Your task to perform on an android device: turn on improve location accuracy Image 0: 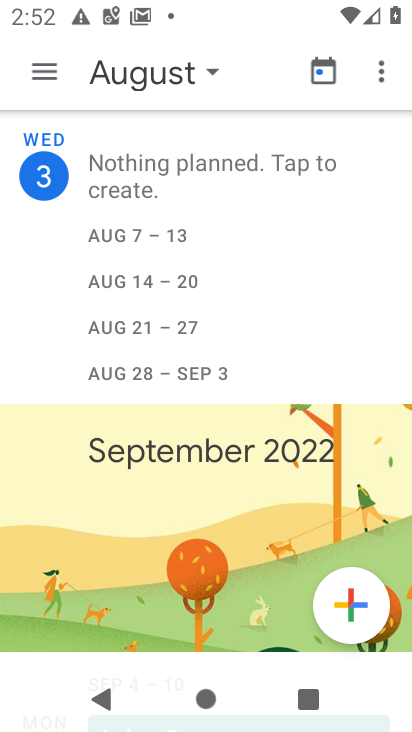
Step 0: press home button
Your task to perform on an android device: turn on improve location accuracy Image 1: 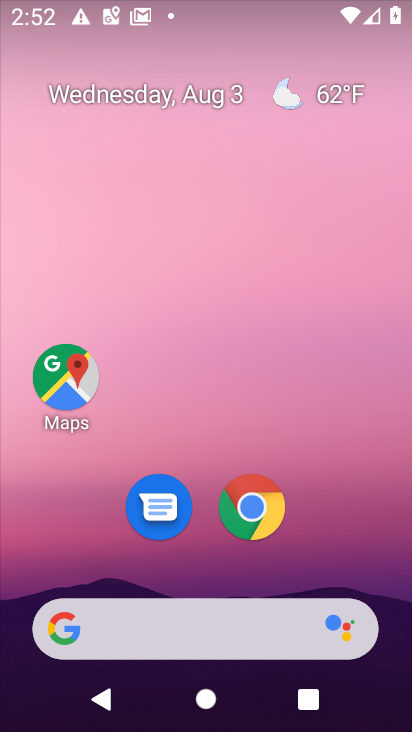
Step 1: drag from (348, 551) to (260, 84)
Your task to perform on an android device: turn on improve location accuracy Image 2: 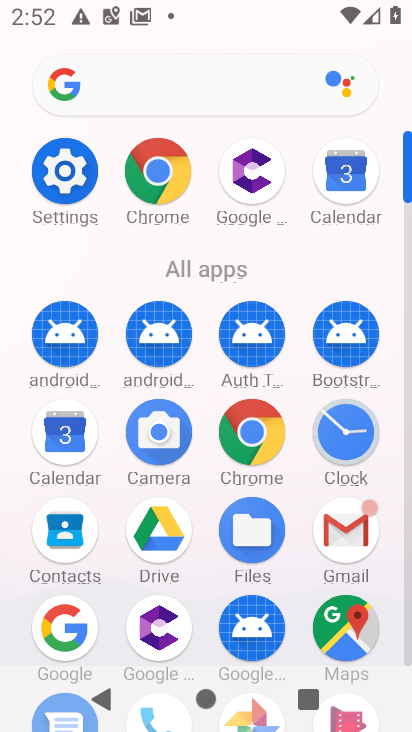
Step 2: click (61, 159)
Your task to perform on an android device: turn on improve location accuracy Image 3: 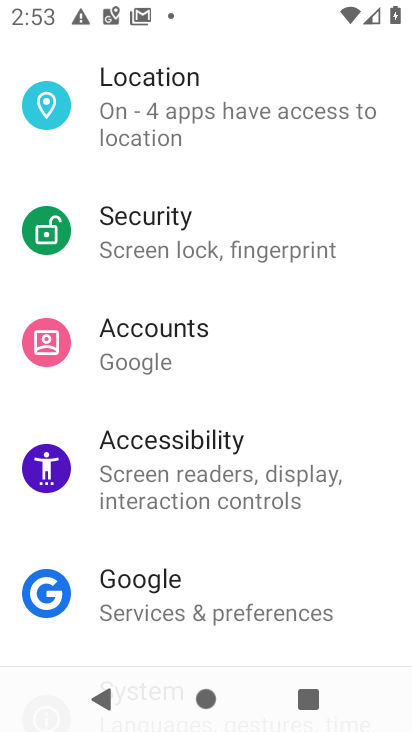
Step 3: click (157, 118)
Your task to perform on an android device: turn on improve location accuracy Image 4: 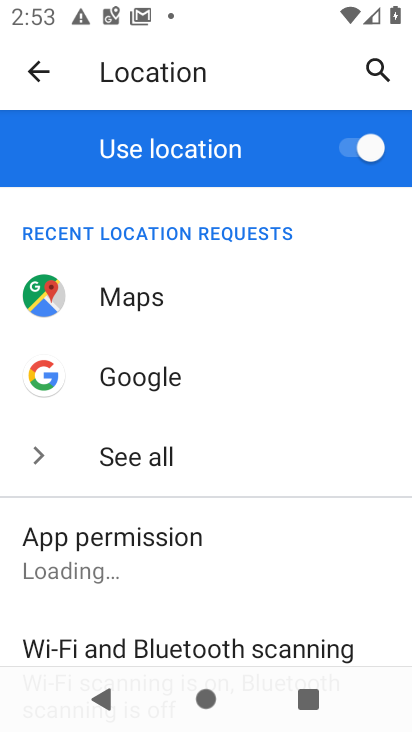
Step 4: drag from (227, 588) to (197, 253)
Your task to perform on an android device: turn on improve location accuracy Image 5: 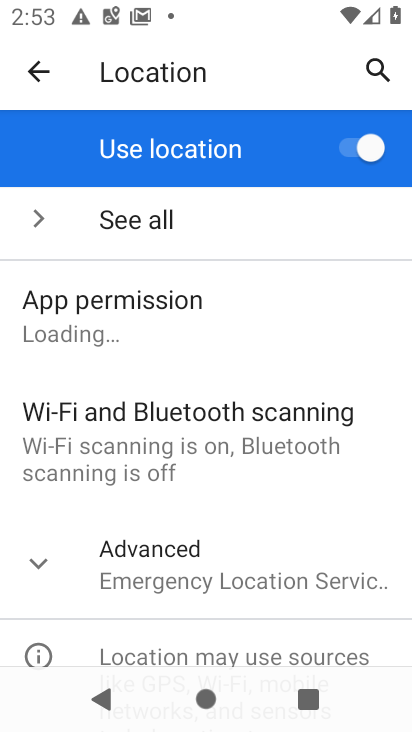
Step 5: click (172, 568)
Your task to perform on an android device: turn on improve location accuracy Image 6: 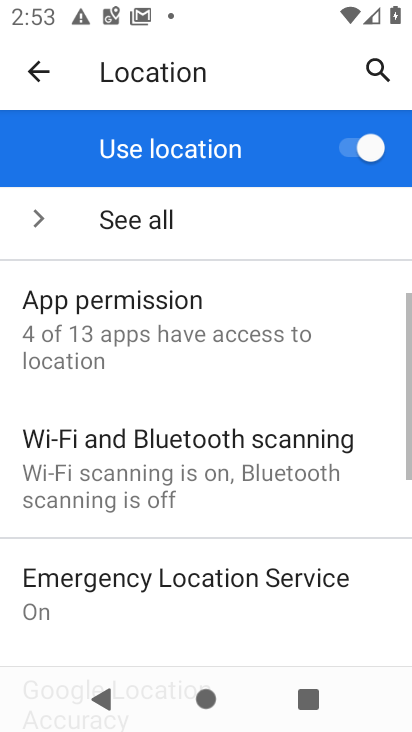
Step 6: drag from (172, 568) to (135, 243)
Your task to perform on an android device: turn on improve location accuracy Image 7: 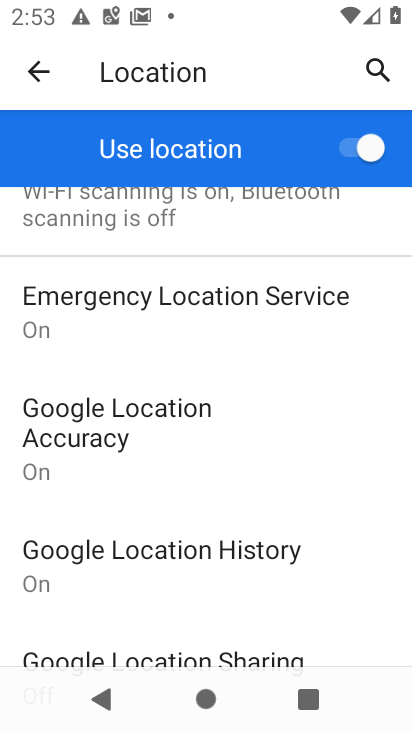
Step 7: click (102, 425)
Your task to perform on an android device: turn on improve location accuracy Image 8: 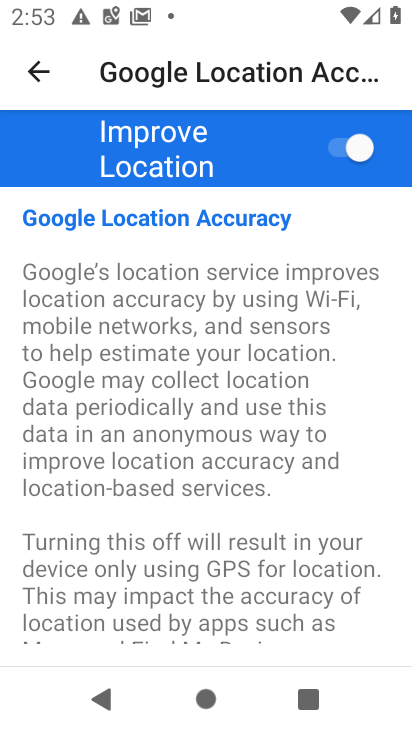
Step 8: task complete